Your task to perform on an android device: Open CNN.com Image 0: 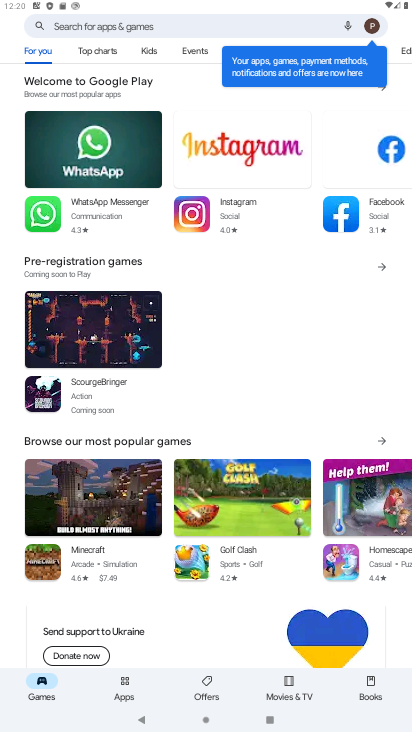
Step 0: press home button
Your task to perform on an android device: Open CNN.com Image 1: 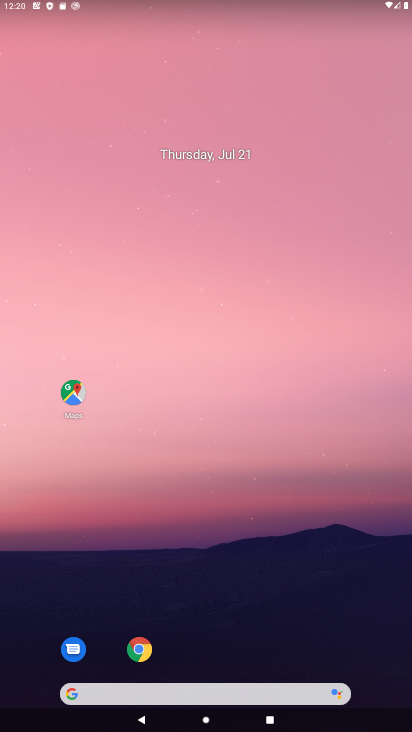
Step 1: click (140, 650)
Your task to perform on an android device: Open CNN.com Image 2: 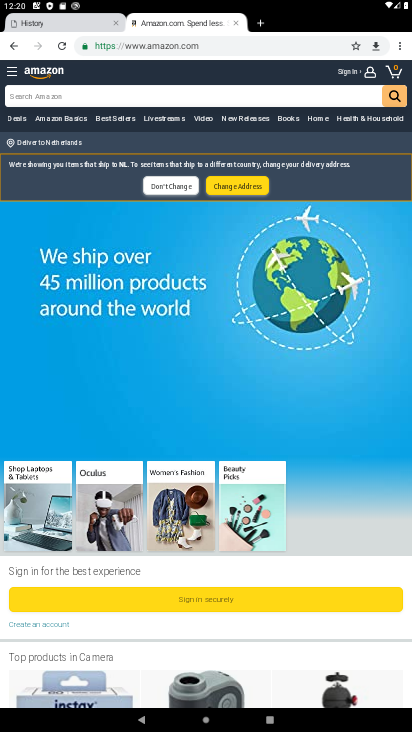
Step 2: click (399, 45)
Your task to perform on an android device: Open CNN.com Image 3: 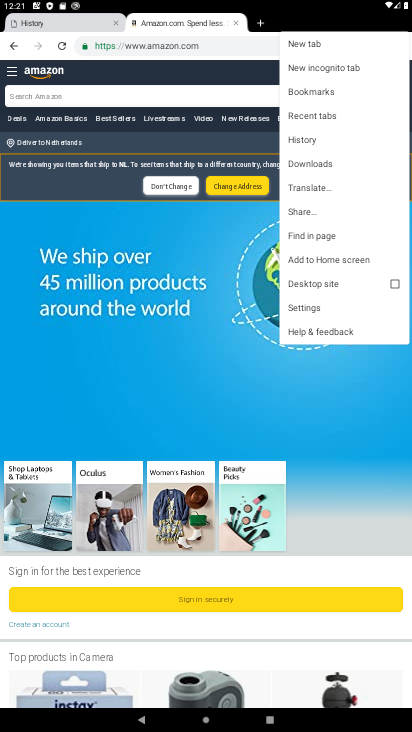
Step 3: click (315, 43)
Your task to perform on an android device: Open CNN.com Image 4: 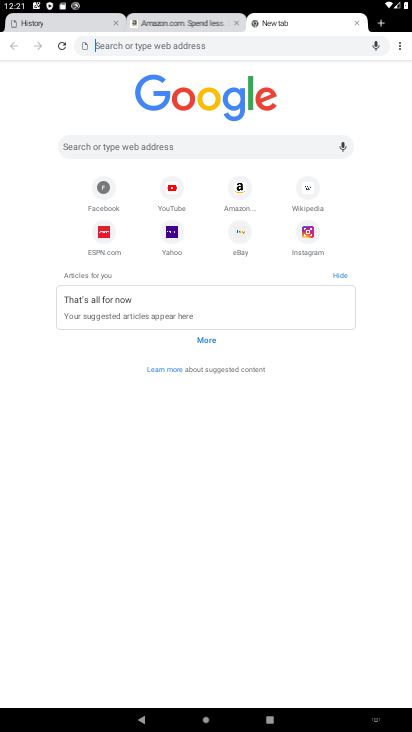
Step 4: click (246, 148)
Your task to perform on an android device: Open CNN.com Image 5: 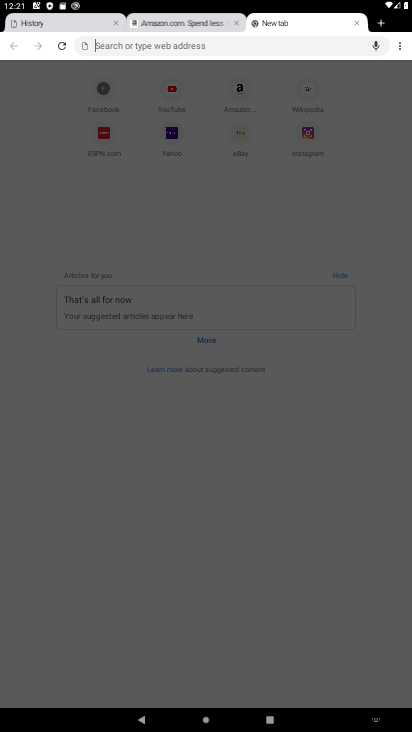
Step 5: type "CNN.com"
Your task to perform on an android device: Open CNN.com Image 6: 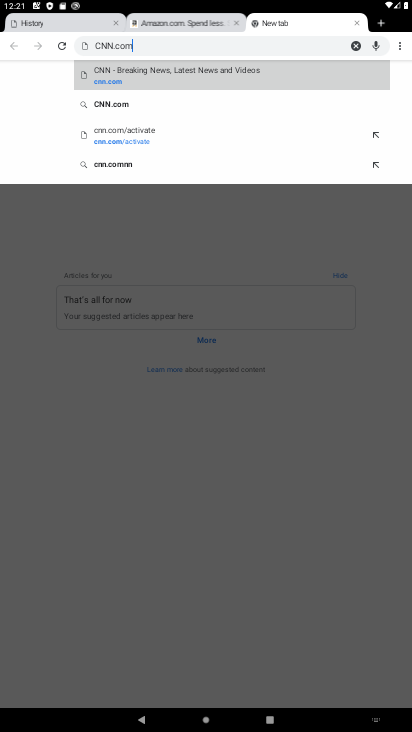
Step 6: type ""
Your task to perform on an android device: Open CNN.com Image 7: 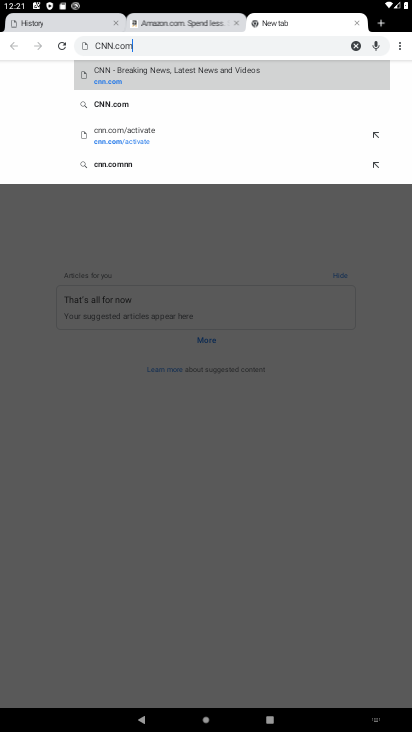
Step 7: click (140, 73)
Your task to perform on an android device: Open CNN.com Image 8: 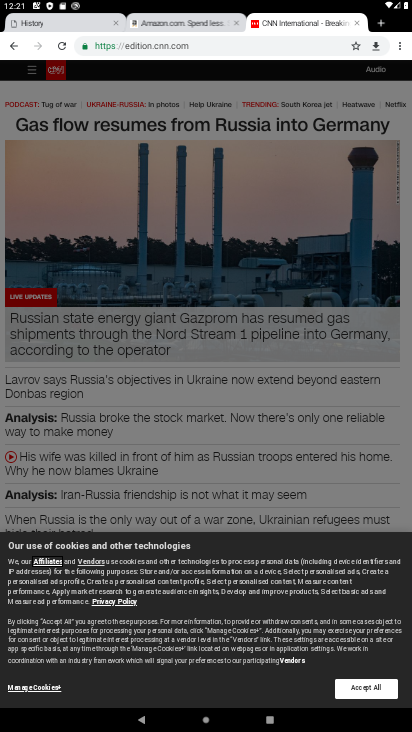
Step 8: task complete